Your task to perform on an android device: allow notifications from all sites in the chrome app Image 0: 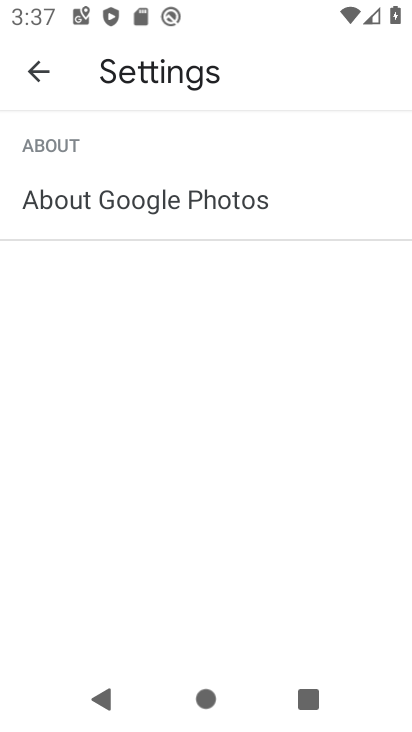
Step 0: press home button
Your task to perform on an android device: allow notifications from all sites in the chrome app Image 1: 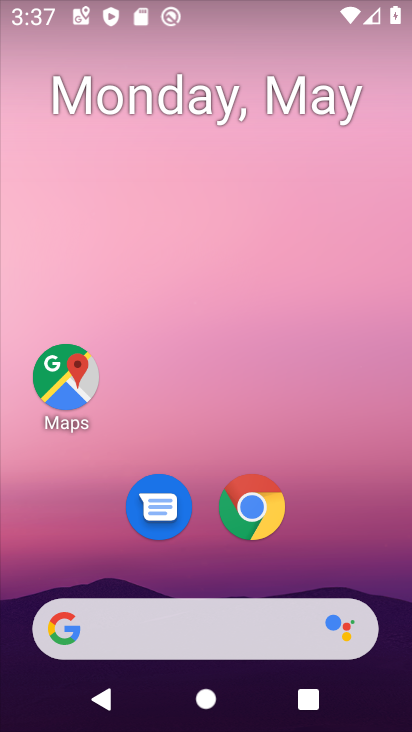
Step 1: click (253, 516)
Your task to perform on an android device: allow notifications from all sites in the chrome app Image 2: 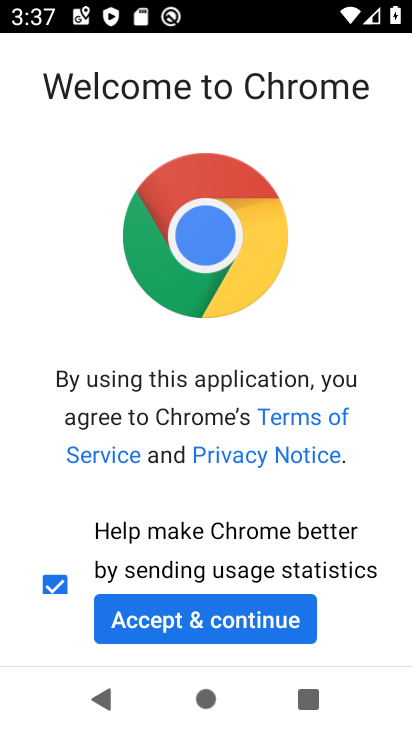
Step 2: click (196, 621)
Your task to perform on an android device: allow notifications from all sites in the chrome app Image 3: 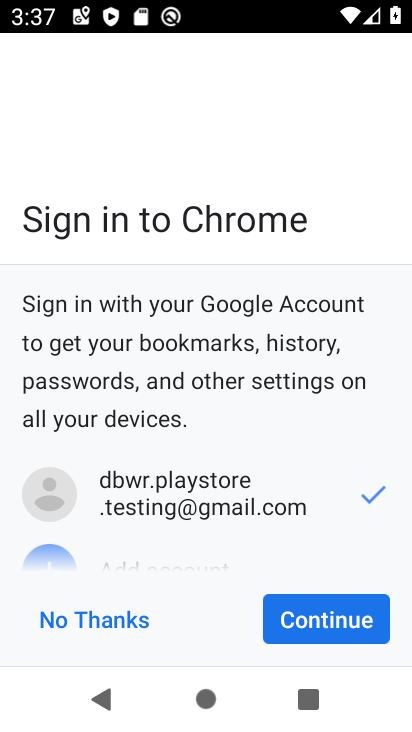
Step 3: click (306, 614)
Your task to perform on an android device: allow notifications from all sites in the chrome app Image 4: 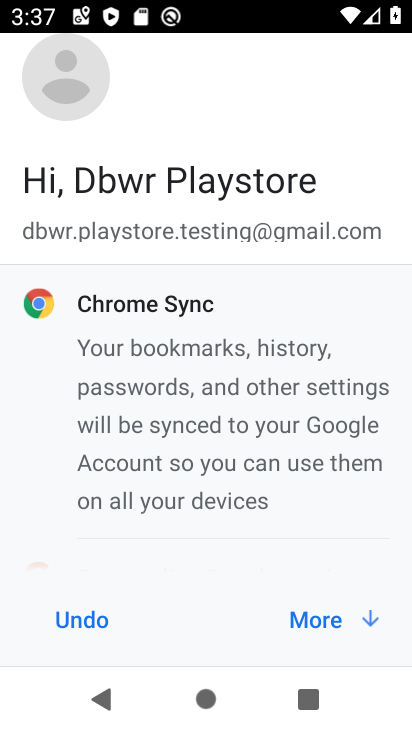
Step 4: click (306, 614)
Your task to perform on an android device: allow notifications from all sites in the chrome app Image 5: 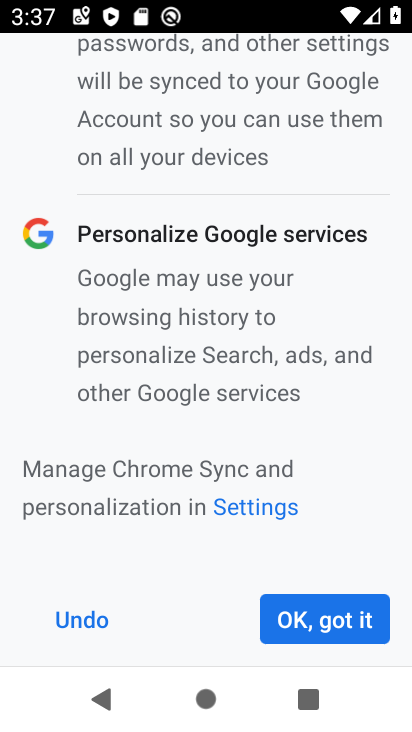
Step 5: click (306, 614)
Your task to perform on an android device: allow notifications from all sites in the chrome app Image 6: 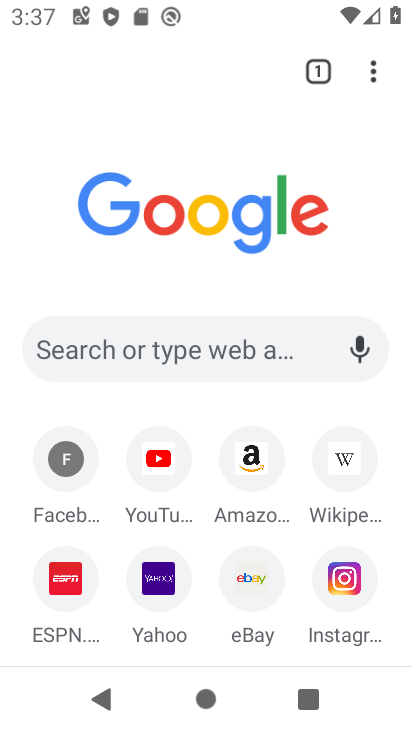
Step 6: click (383, 69)
Your task to perform on an android device: allow notifications from all sites in the chrome app Image 7: 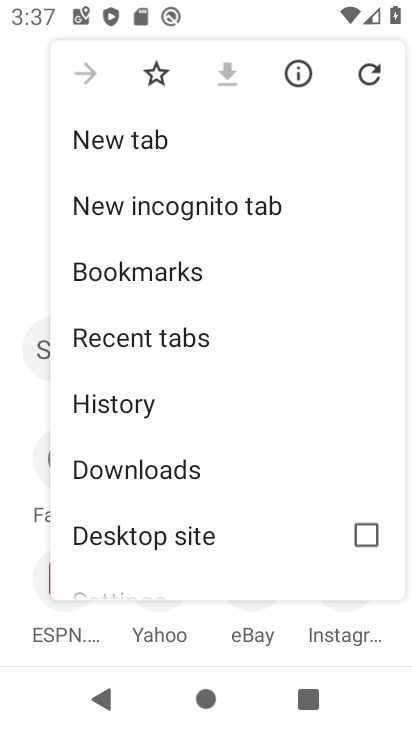
Step 7: click (85, 594)
Your task to perform on an android device: allow notifications from all sites in the chrome app Image 8: 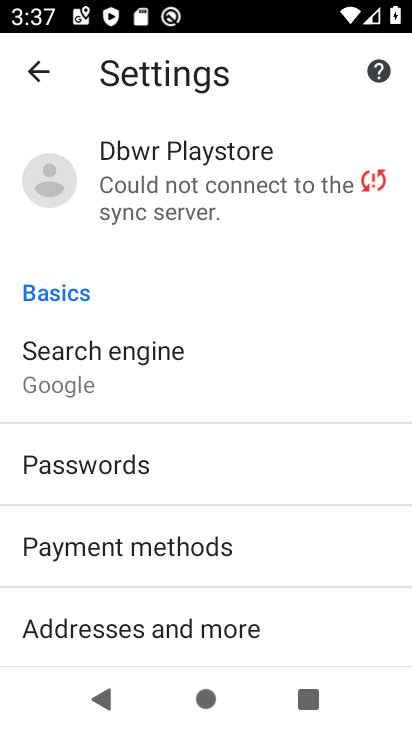
Step 8: drag from (213, 359) to (205, 75)
Your task to perform on an android device: allow notifications from all sites in the chrome app Image 9: 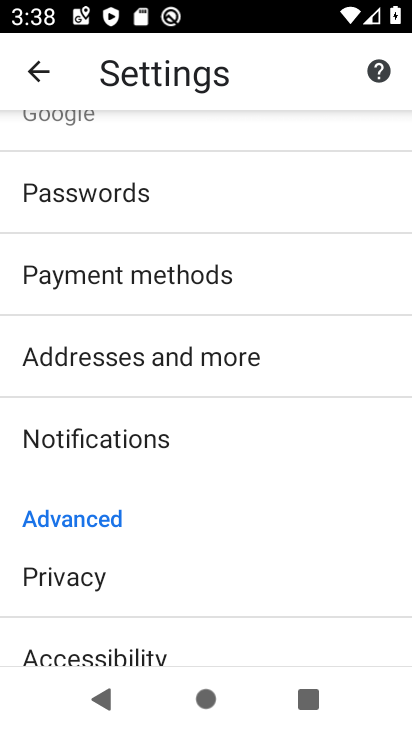
Step 9: click (101, 418)
Your task to perform on an android device: allow notifications from all sites in the chrome app Image 10: 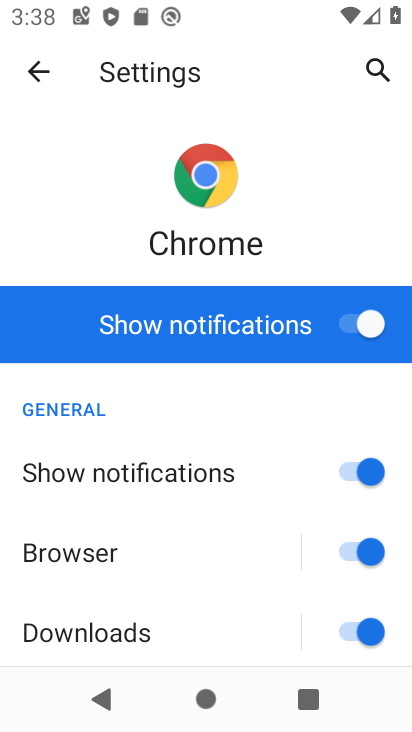
Step 10: task complete